Your task to perform on an android device: add a contact in the contacts app Image 0: 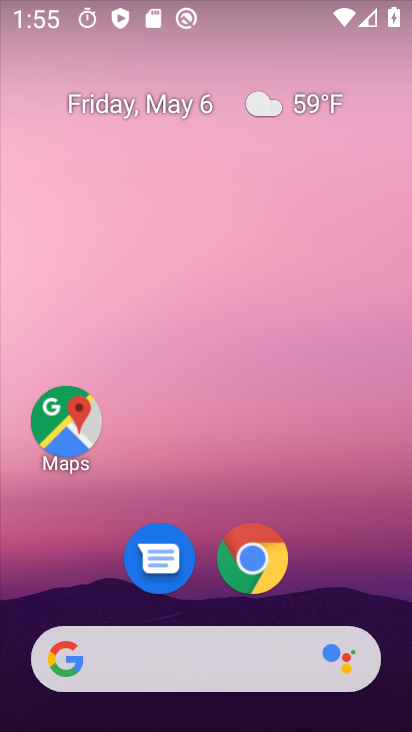
Step 0: drag from (221, 725) to (197, 169)
Your task to perform on an android device: add a contact in the contacts app Image 1: 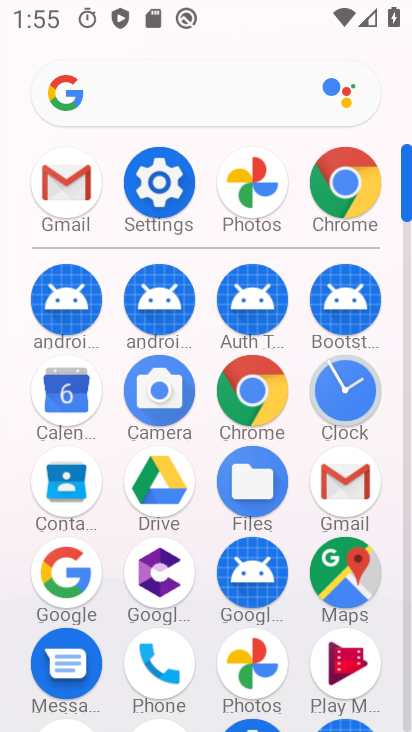
Step 1: click (66, 481)
Your task to perform on an android device: add a contact in the contacts app Image 2: 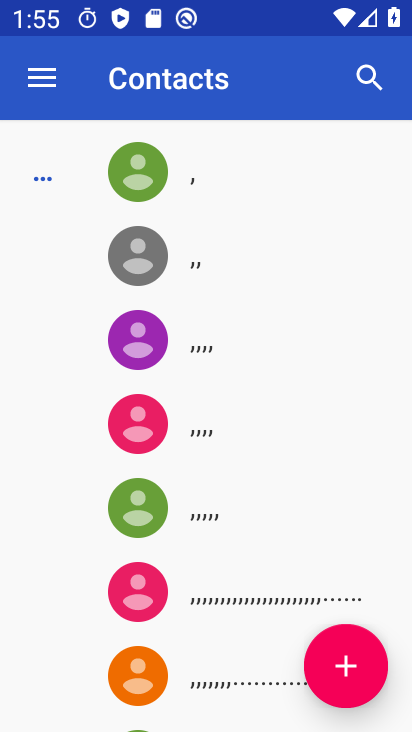
Step 2: click (145, 174)
Your task to perform on an android device: add a contact in the contacts app Image 3: 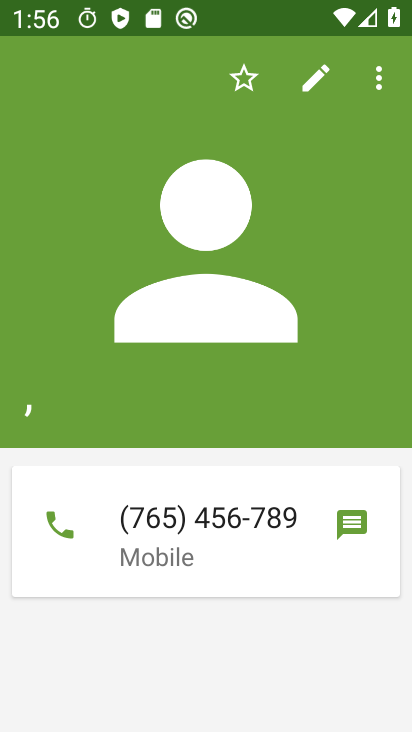
Step 3: task complete